Your task to perform on an android device: Search for pizza restaurants on Maps Image 0: 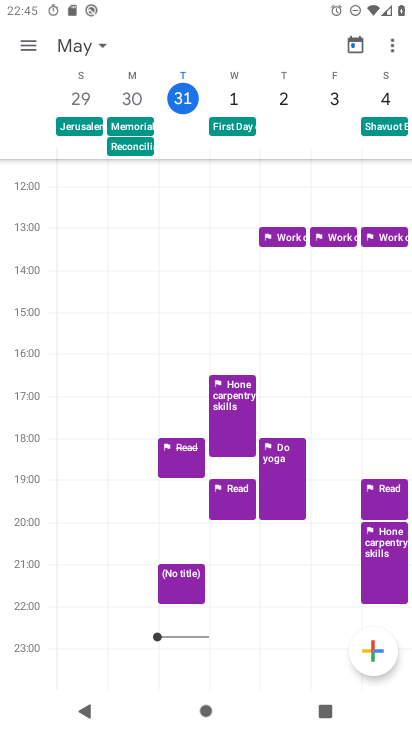
Step 0: press home button
Your task to perform on an android device: Search for pizza restaurants on Maps Image 1: 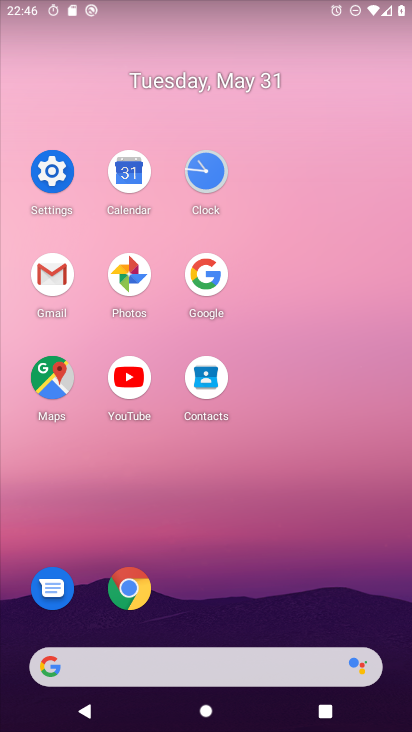
Step 1: click (53, 387)
Your task to perform on an android device: Search for pizza restaurants on Maps Image 2: 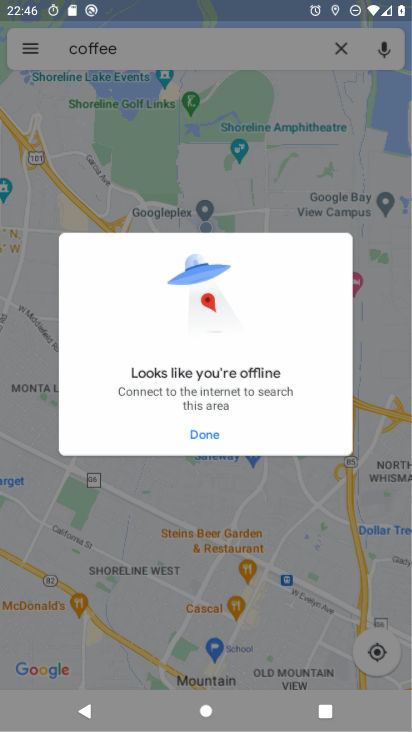
Step 2: click (204, 434)
Your task to perform on an android device: Search for pizza restaurants on Maps Image 3: 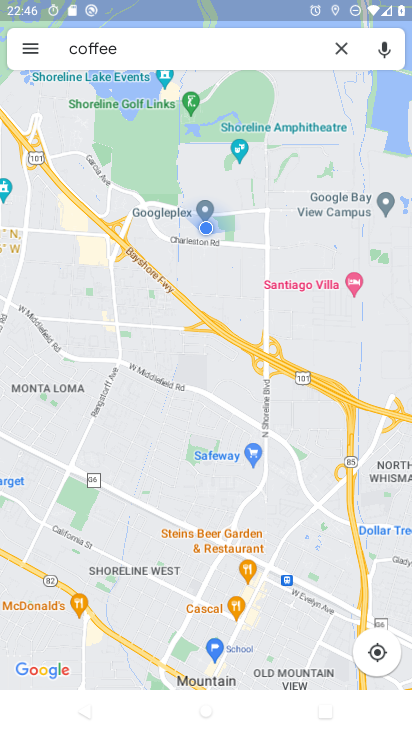
Step 3: click (338, 65)
Your task to perform on an android device: Search for pizza restaurants on Maps Image 4: 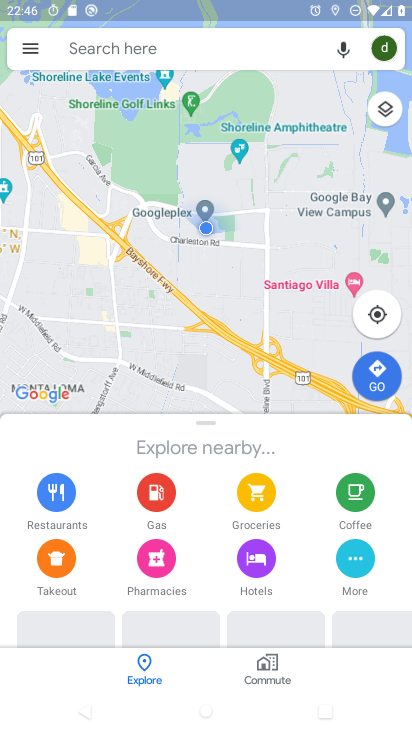
Step 4: click (231, 60)
Your task to perform on an android device: Search for pizza restaurants on Maps Image 5: 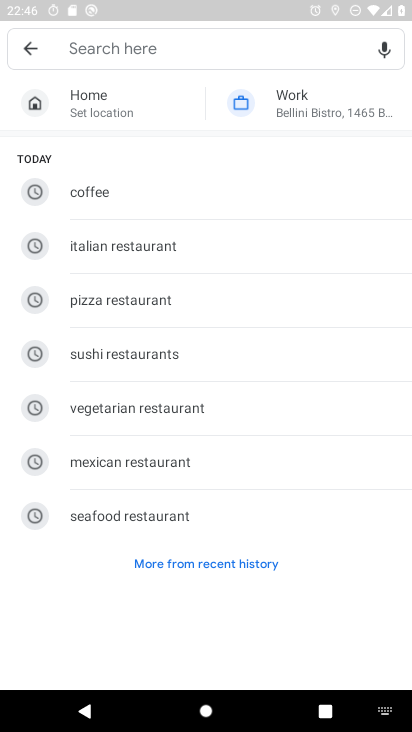
Step 5: click (172, 298)
Your task to perform on an android device: Search for pizza restaurants on Maps Image 6: 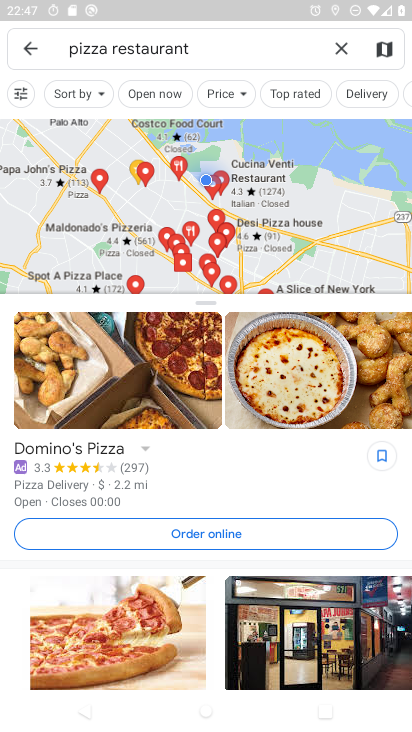
Step 6: task complete